Your task to perform on an android device: Open Youtube and go to the subscriptions tab Image 0: 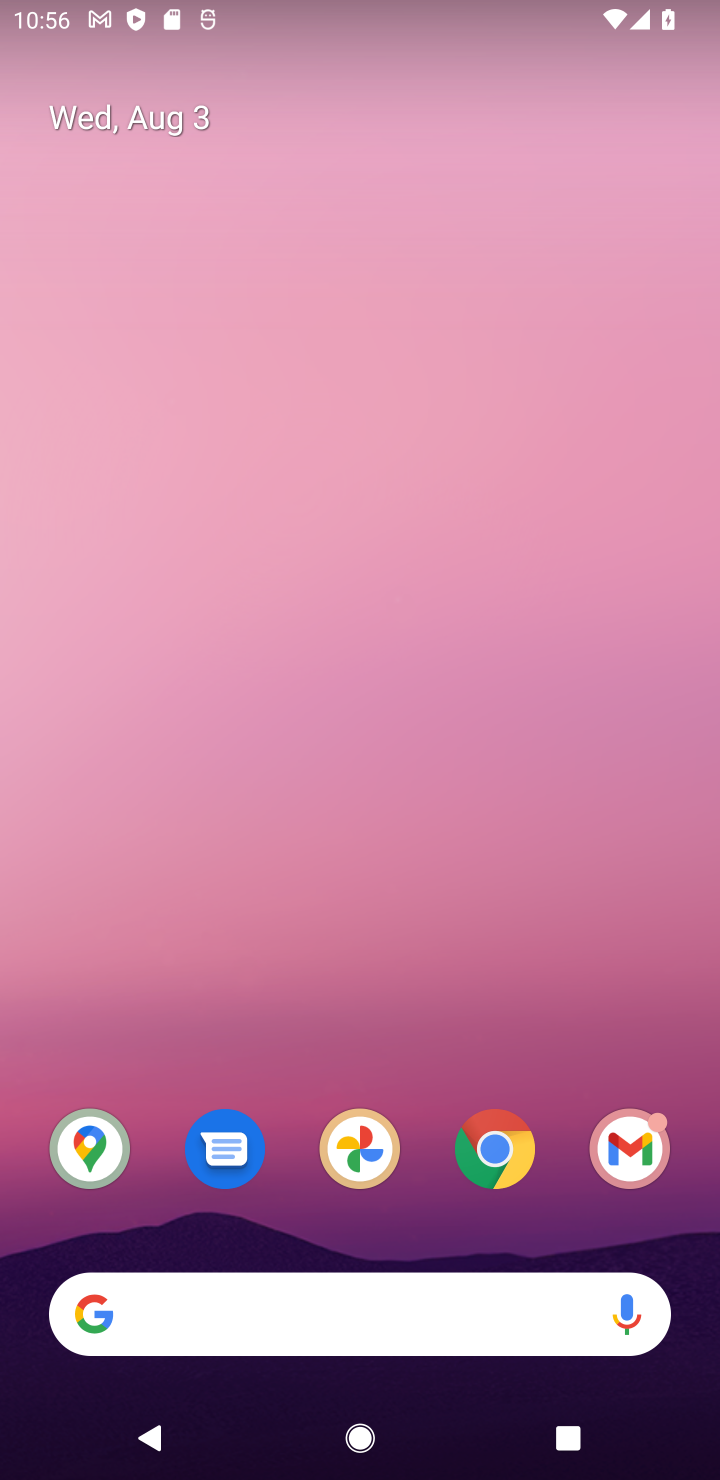
Step 0: drag from (578, 1240) to (415, 255)
Your task to perform on an android device: Open Youtube and go to the subscriptions tab Image 1: 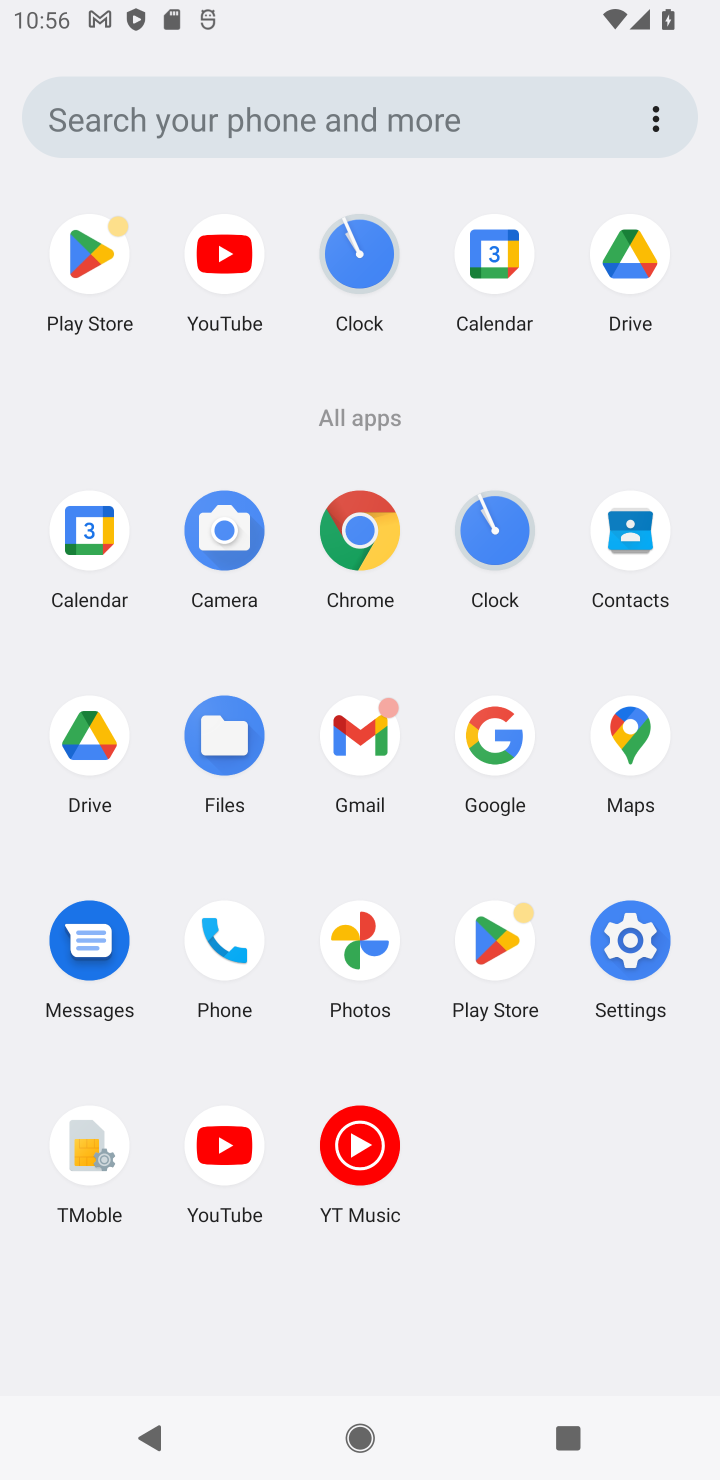
Step 1: click (222, 275)
Your task to perform on an android device: Open Youtube and go to the subscriptions tab Image 2: 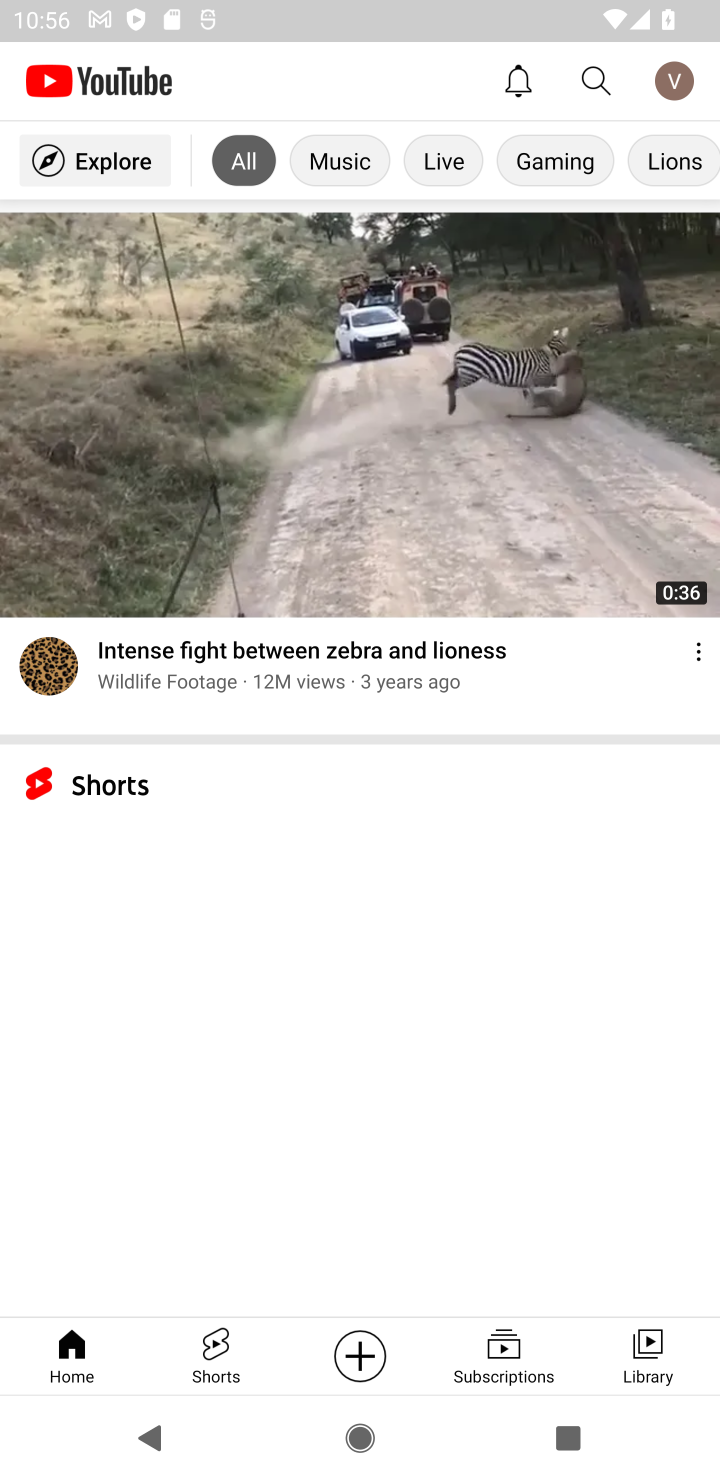
Step 2: click (513, 1369)
Your task to perform on an android device: Open Youtube and go to the subscriptions tab Image 3: 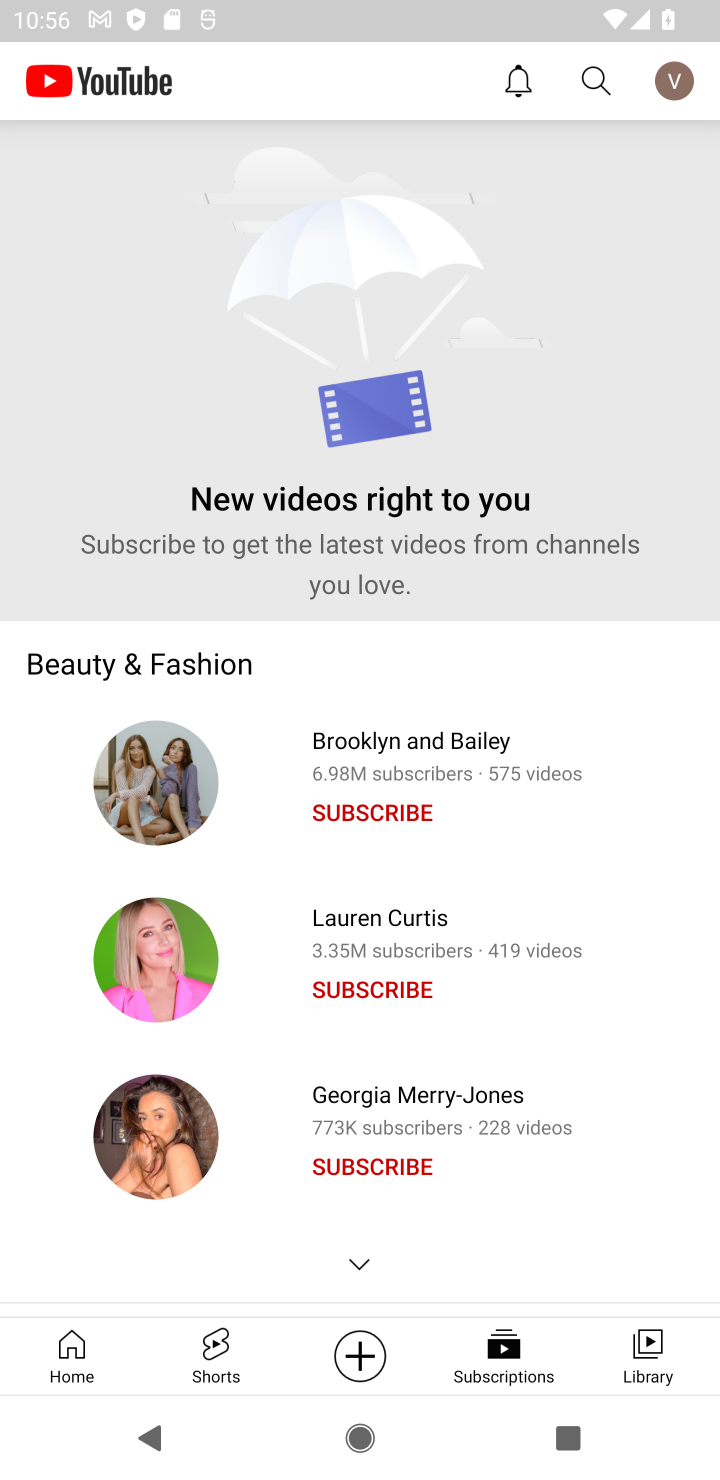
Step 3: task complete